Your task to perform on an android device: Is it going to rain this weekend? Image 0: 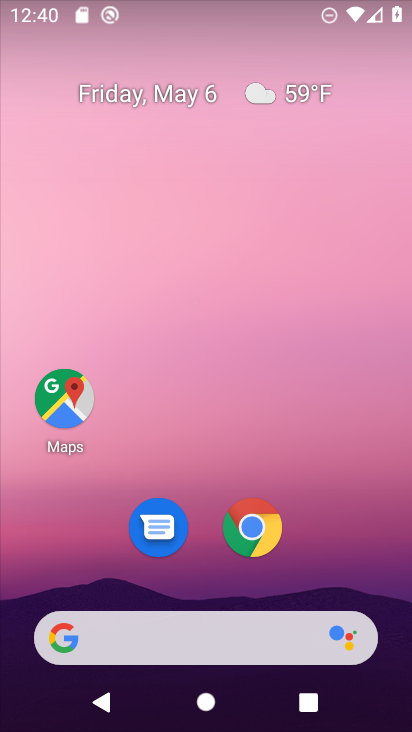
Step 0: drag from (306, 560) to (210, 55)
Your task to perform on an android device: Is it going to rain this weekend? Image 1: 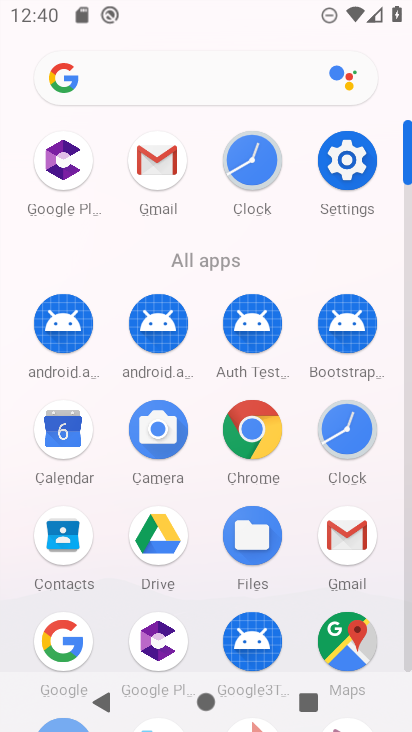
Step 1: click (57, 640)
Your task to perform on an android device: Is it going to rain this weekend? Image 2: 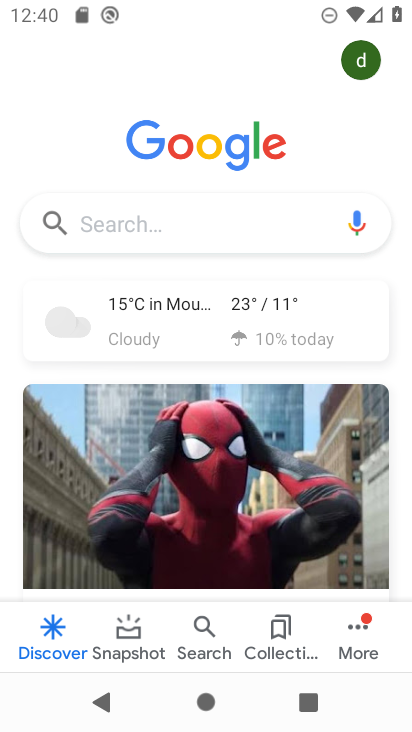
Step 2: click (187, 218)
Your task to perform on an android device: Is it going to rain this weekend? Image 3: 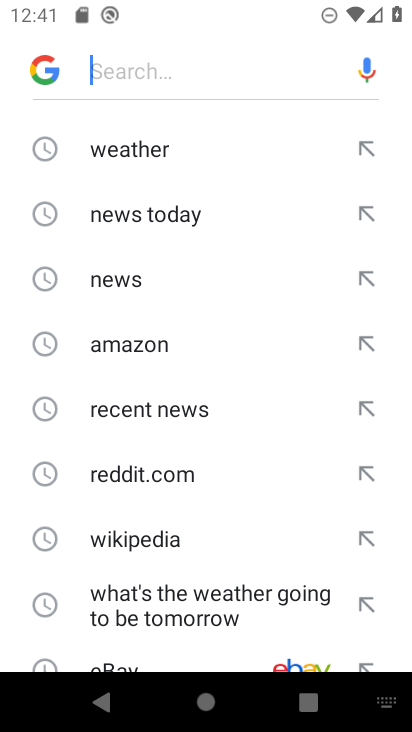
Step 3: type "rain weekend"
Your task to perform on an android device: Is it going to rain this weekend? Image 4: 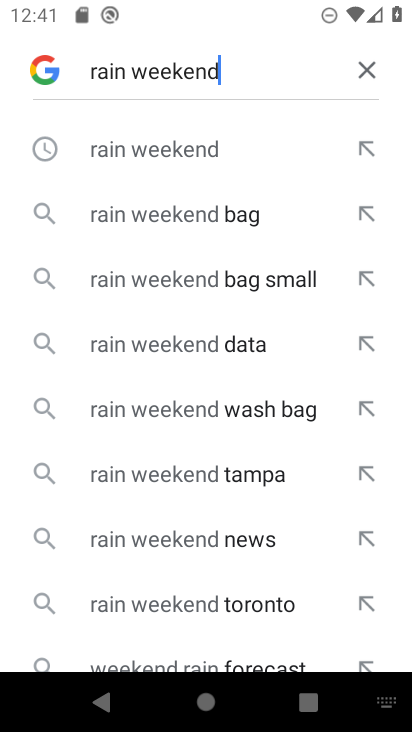
Step 4: click (174, 154)
Your task to perform on an android device: Is it going to rain this weekend? Image 5: 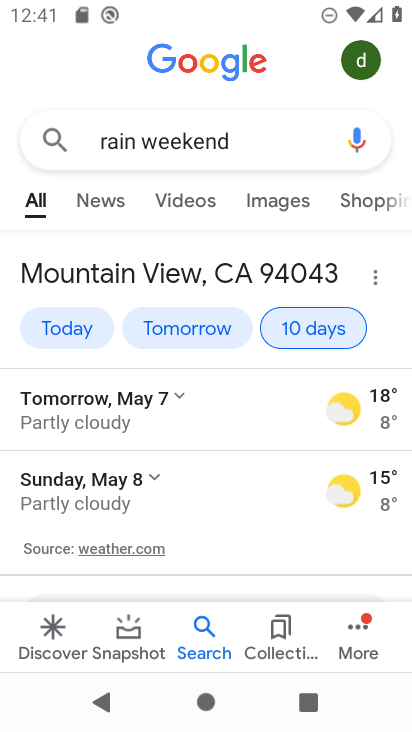
Step 5: task complete